Your task to perform on an android device: Go to network settings Image 0: 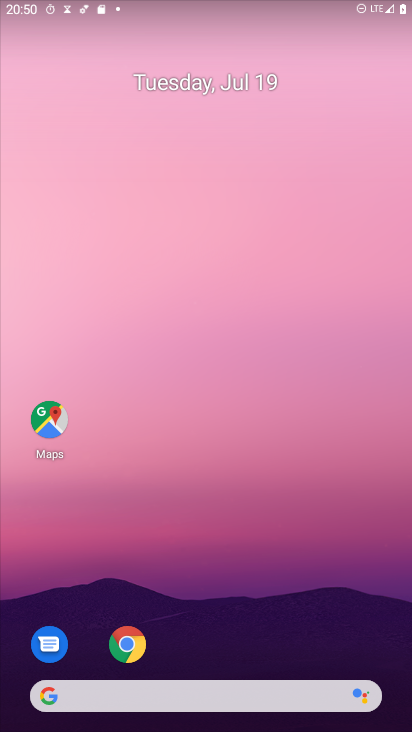
Step 0: drag from (22, 711) to (194, 236)
Your task to perform on an android device: Go to network settings Image 1: 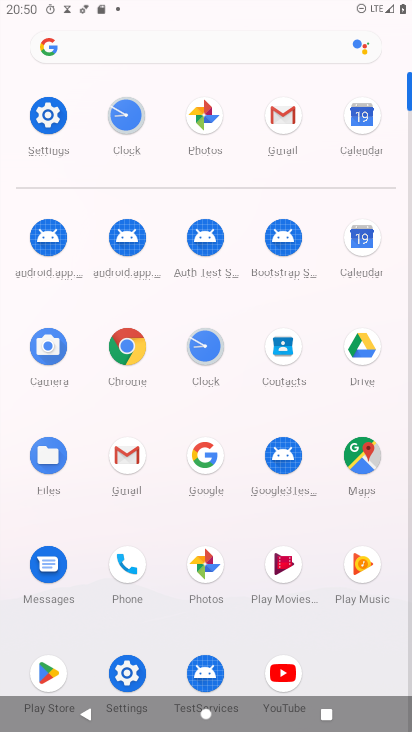
Step 1: click (120, 659)
Your task to perform on an android device: Go to network settings Image 2: 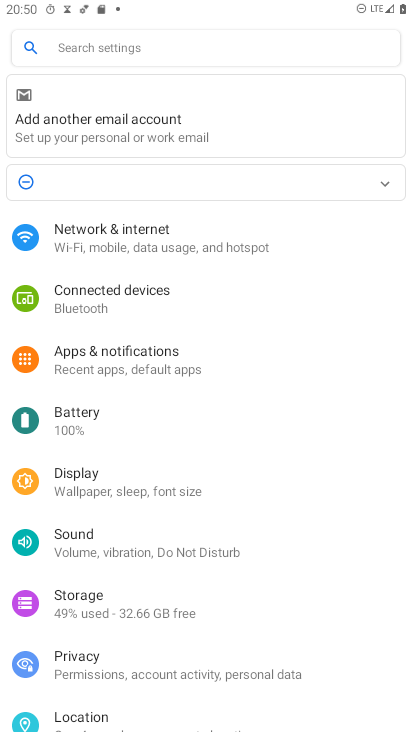
Step 2: click (129, 242)
Your task to perform on an android device: Go to network settings Image 3: 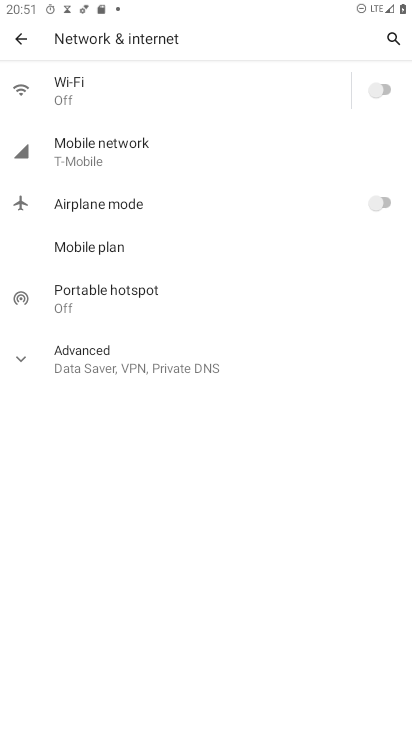
Step 3: task complete